Your task to perform on an android device: show emergency info Image 0: 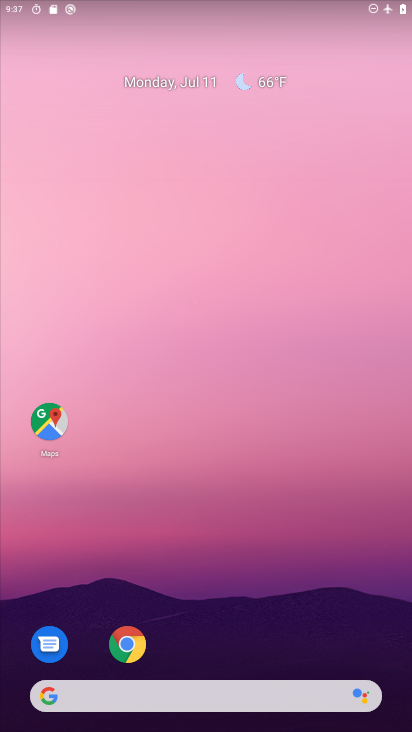
Step 0: drag from (291, 666) to (161, 207)
Your task to perform on an android device: show emergency info Image 1: 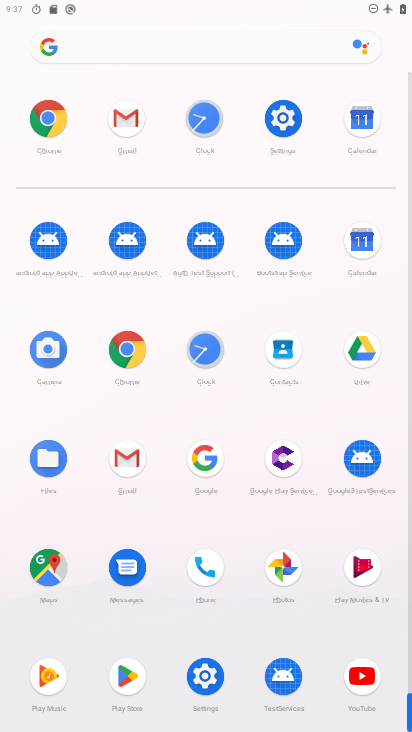
Step 1: click (288, 113)
Your task to perform on an android device: show emergency info Image 2: 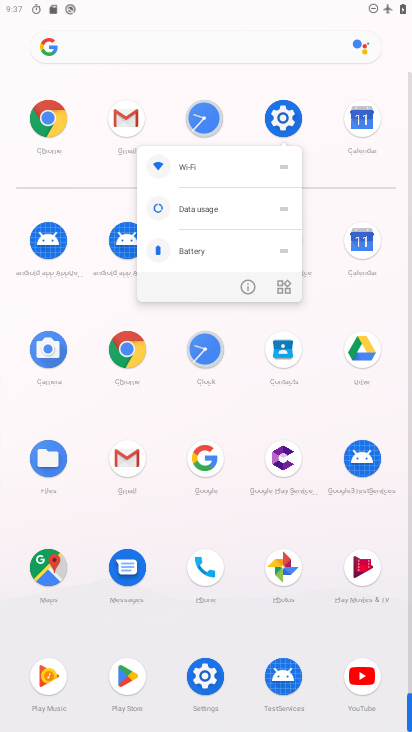
Step 2: click (286, 118)
Your task to perform on an android device: show emergency info Image 3: 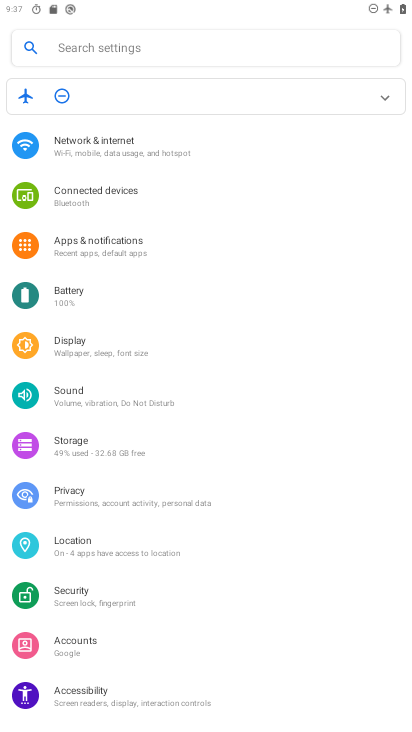
Step 3: drag from (276, 557) to (289, 108)
Your task to perform on an android device: show emergency info Image 4: 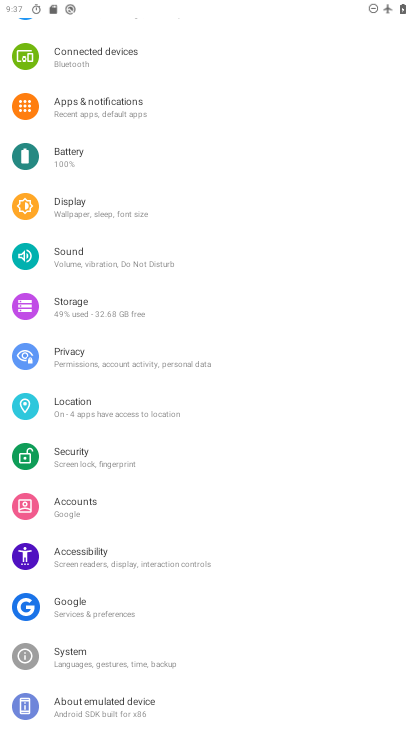
Step 4: click (129, 700)
Your task to perform on an android device: show emergency info Image 5: 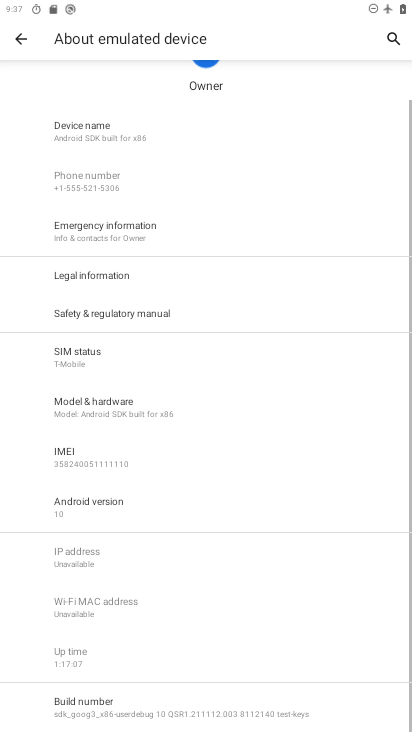
Step 5: click (128, 233)
Your task to perform on an android device: show emergency info Image 6: 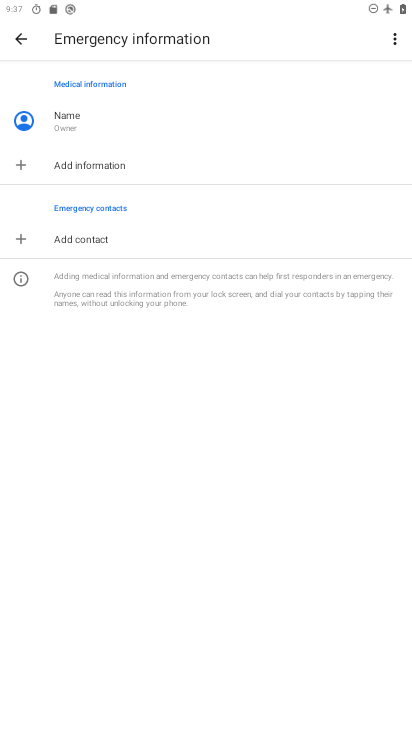
Step 6: task complete